Your task to perform on an android device: change the clock style Image 0: 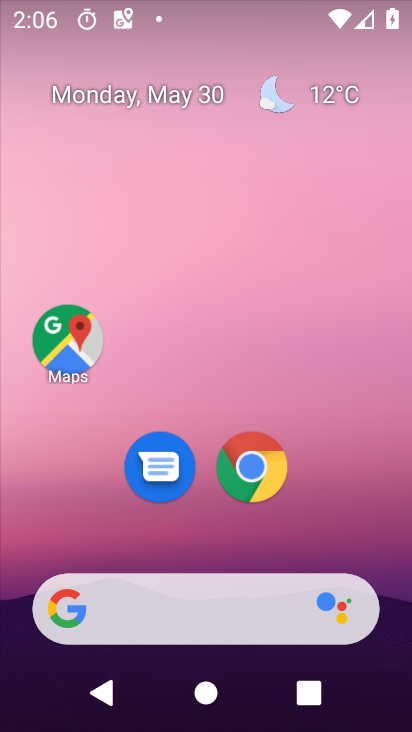
Step 0: drag from (383, 645) to (348, 229)
Your task to perform on an android device: change the clock style Image 1: 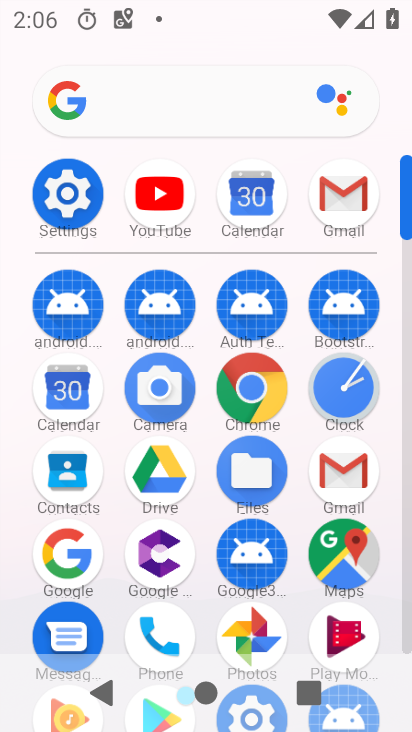
Step 1: click (351, 390)
Your task to perform on an android device: change the clock style Image 2: 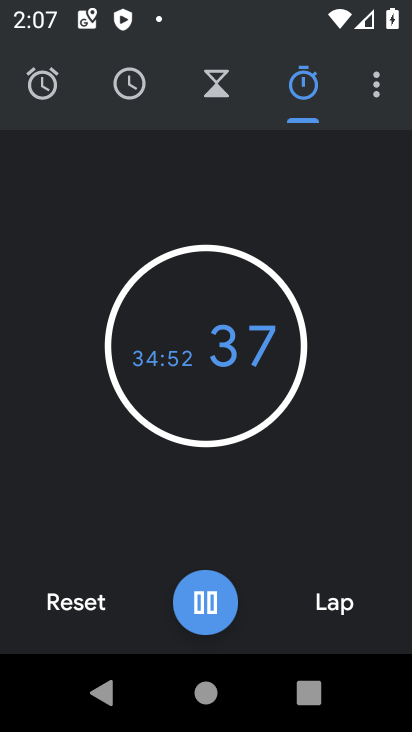
Step 2: click (380, 88)
Your task to perform on an android device: change the clock style Image 3: 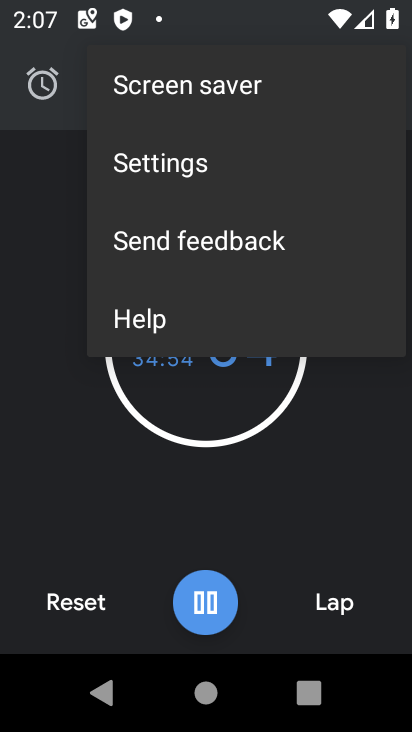
Step 3: click (176, 151)
Your task to perform on an android device: change the clock style Image 4: 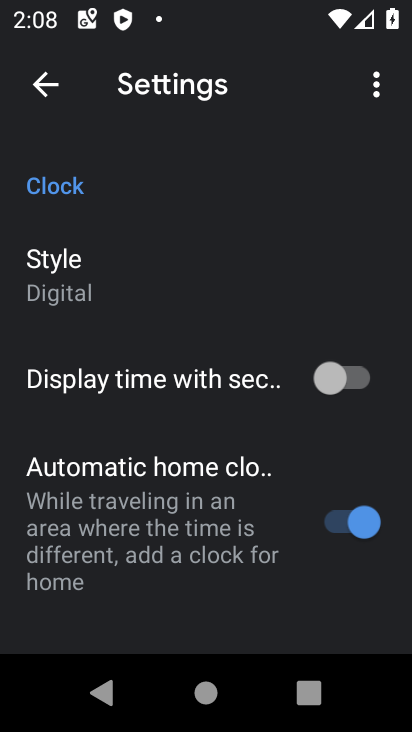
Step 4: click (70, 277)
Your task to perform on an android device: change the clock style Image 5: 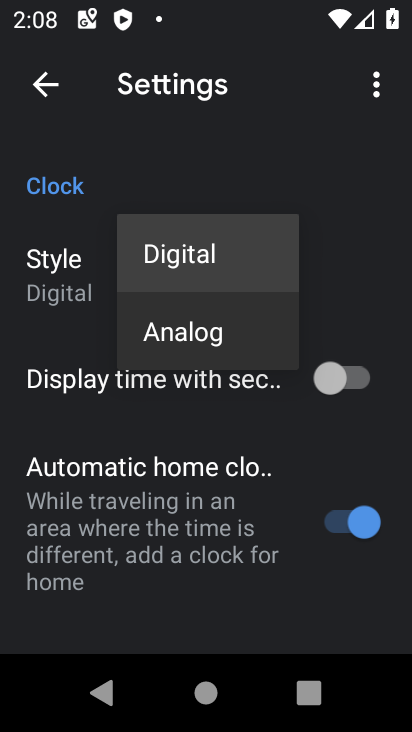
Step 5: click (182, 325)
Your task to perform on an android device: change the clock style Image 6: 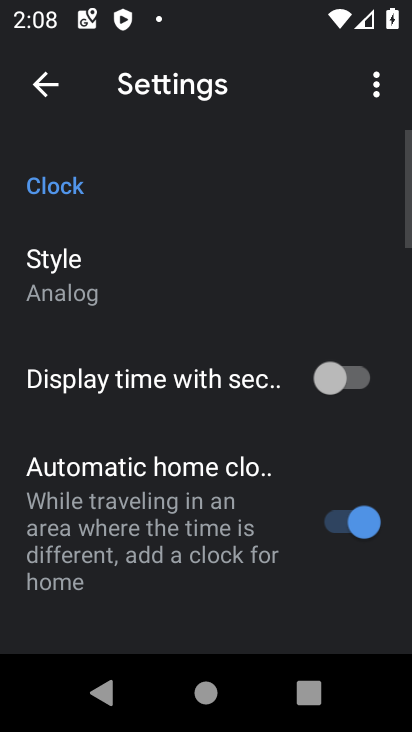
Step 6: task complete